Your task to perform on an android device: change your default location settings in chrome Image 0: 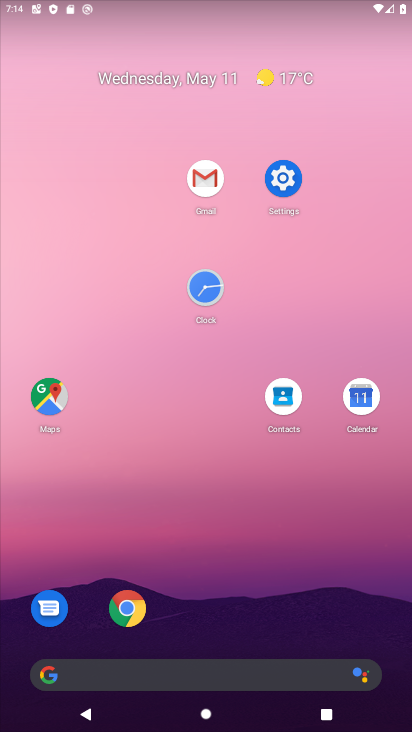
Step 0: click (126, 612)
Your task to perform on an android device: change your default location settings in chrome Image 1: 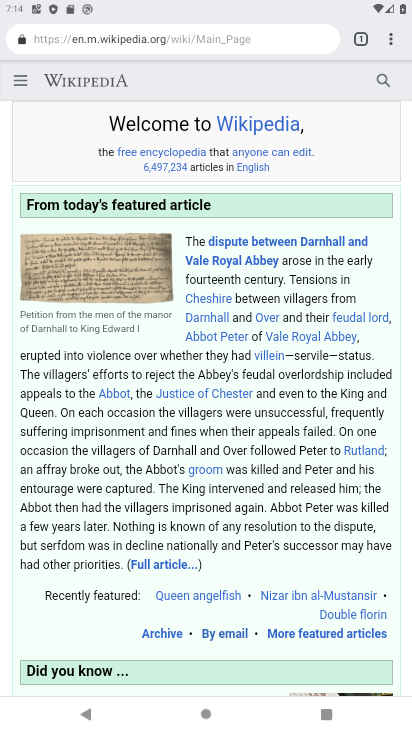
Step 1: click (401, 37)
Your task to perform on an android device: change your default location settings in chrome Image 2: 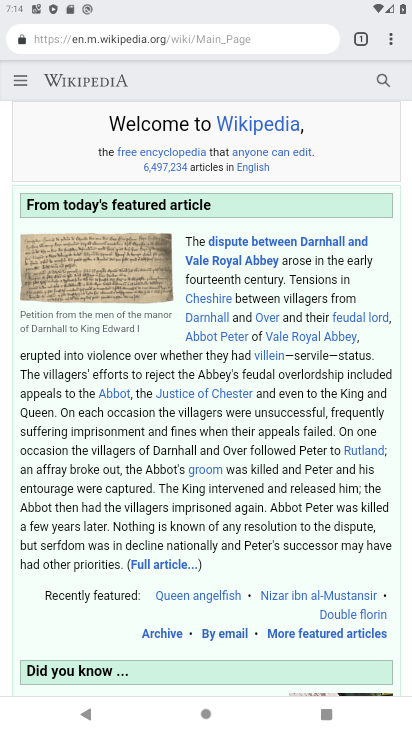
Step 2: click (392, 37)
Your task to perform on an android device: change your default location settings in chrome Image 3: 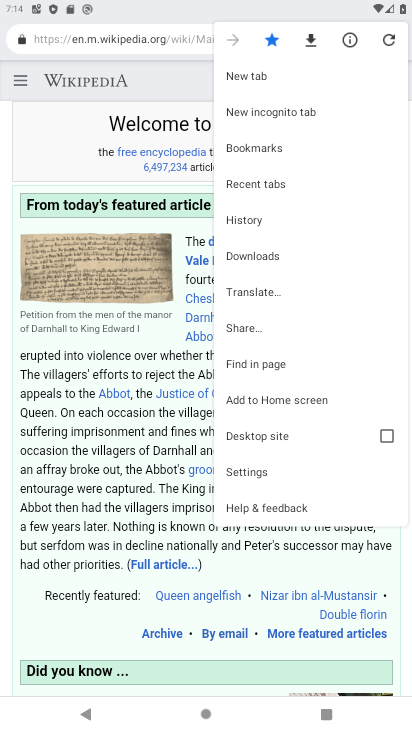
Step 3: click (270, 459)
Your task to perform on an android device: change your default location settings in chrome Image 4: 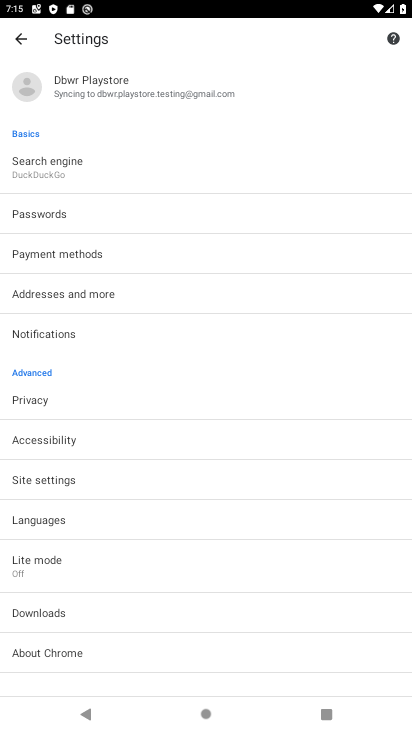
Step 4: click (121, 290)
Your task to perform on an android device: change your default location settings in chrome Image 5: 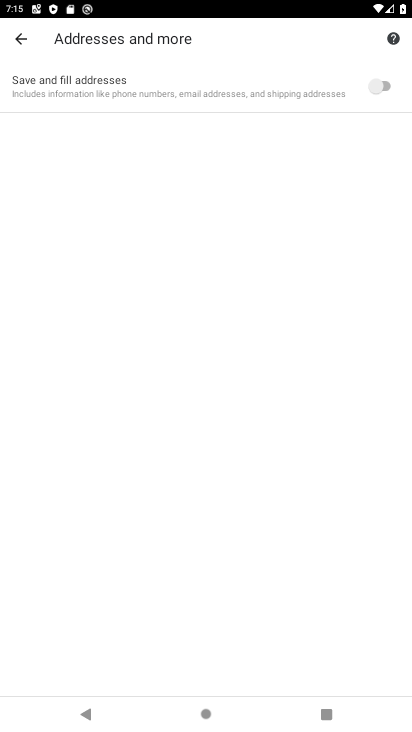
Step 5: click (345, 88)
Your task to perform on an android device: change your default location settings in chrome Image 6: 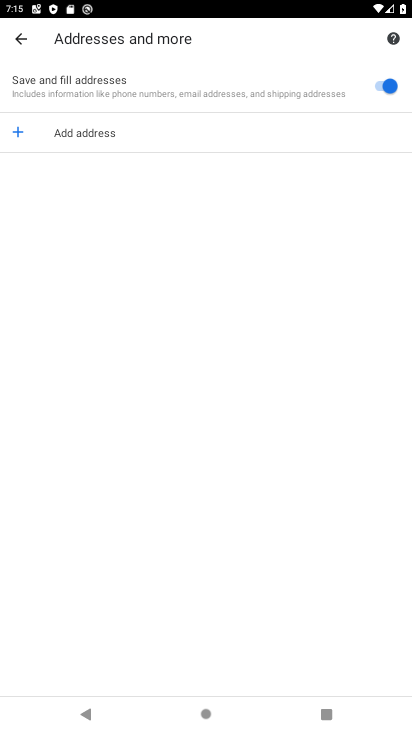
Step 6: task complete